Your task to perform on an android device: Set the phone to "Do not disturb". Image 0: 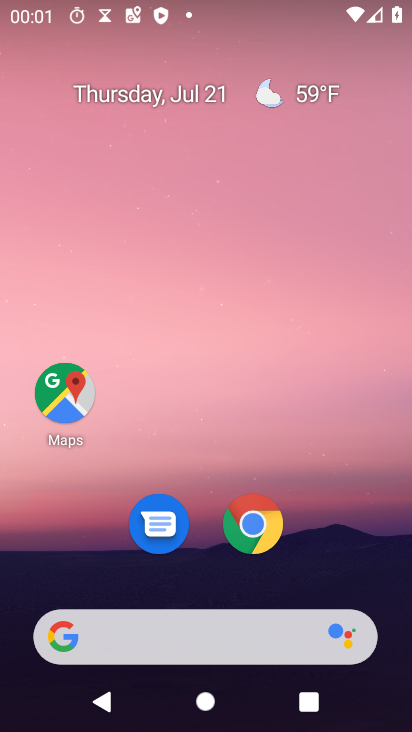
Step 0: press home button
Your task to perform on an android device: Set the phone to "Do not disturb". Image 1: 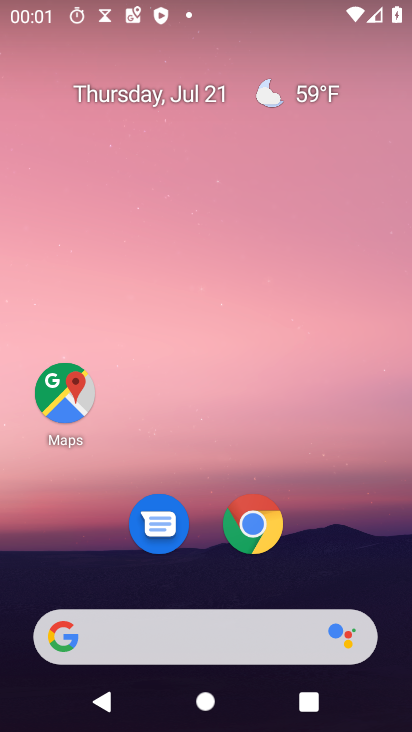
Step 1: drag from (206, 641) to (282, 74)
Your task to perform on an android device: Set the phone to "Do not disturb". Image 2: 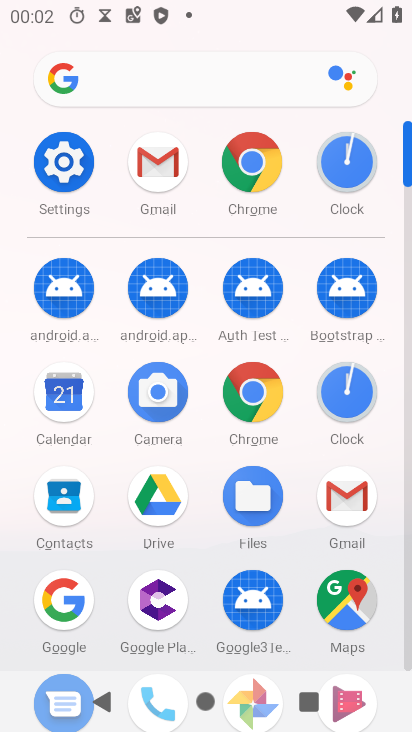
Step 2: click (73, 168)
Your task to perform on an android device: Set the phone to "Do not disturb". Image 3: 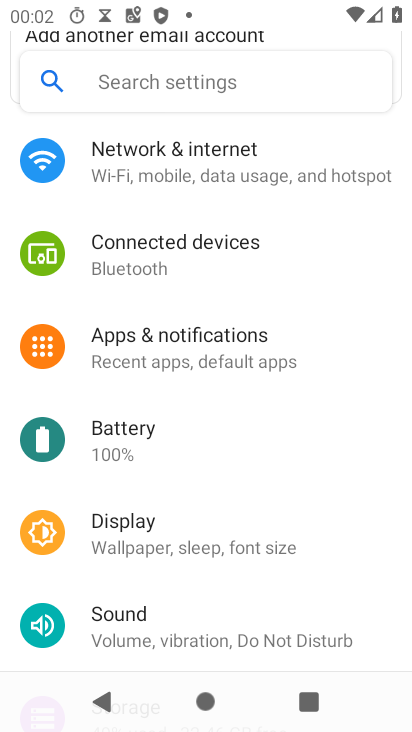
Step 3: drag from (247, 527) to (282, 146)
Your task to perform on an android device: Set the phone to "Do not disturb". Image 4: 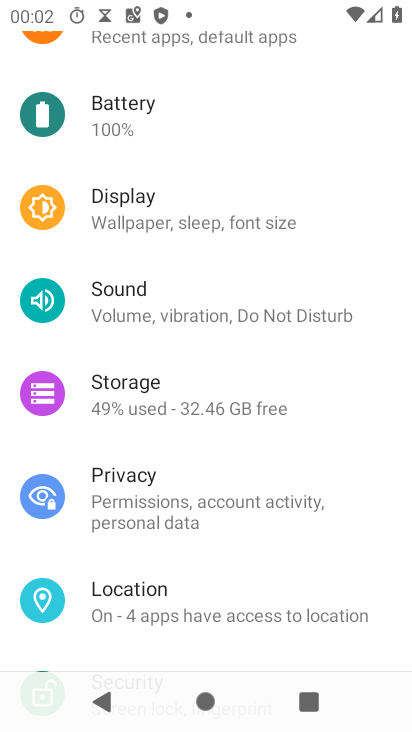
Step 4: click (146, 317)
Your task to perform on an android device: Set the phone to "Do not disturb". Image 5: 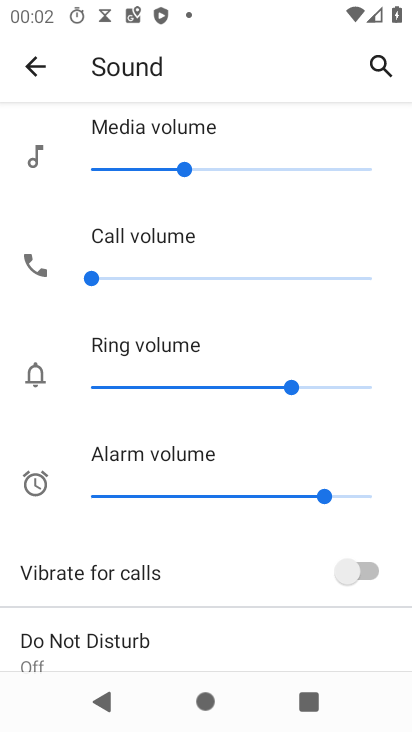
Step 5: drag from (118, 619) to (267, 141)
Your task to perform on an android device: Set the phone to "Do not disturb". Image 6: 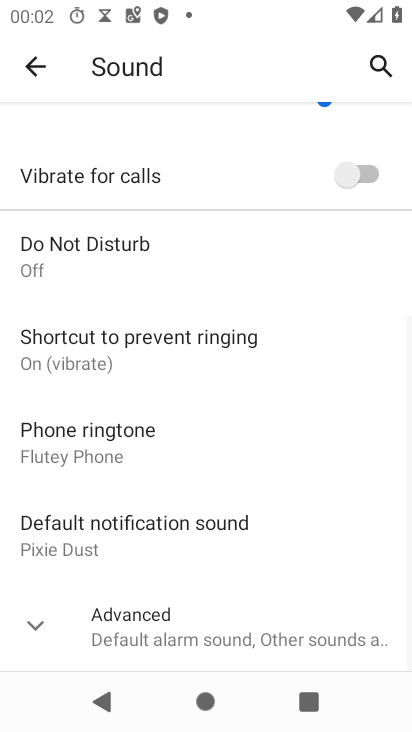
Step 6: click (122, 244)
Your task to perform on an android device: Set the phone to "Do not disturb". Image 7: 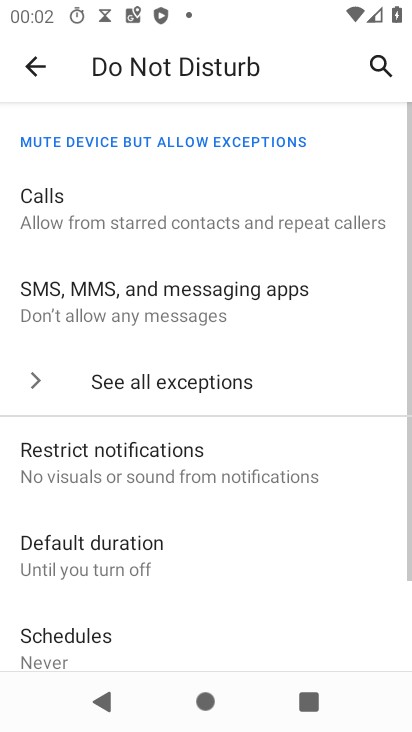
Step 7: drag from (133, 594) to (288, 51)
Your task to perform on an android device: Set the phone to "Do not disturb". Image 8: 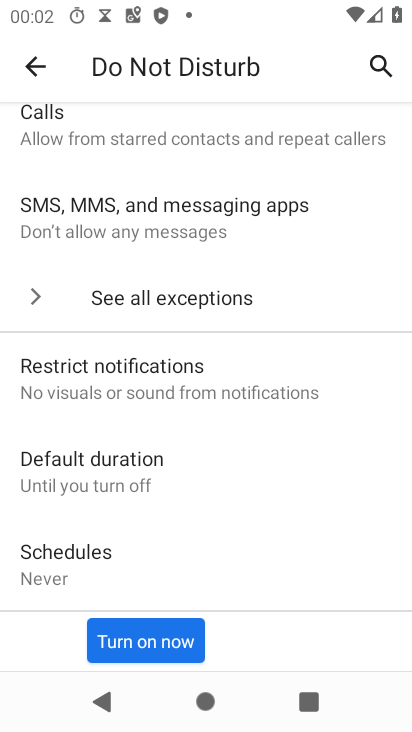
Step 8: click (153, 648)
Your task to perform on an android device: Set the phone to "Do not disturb". Image 9: 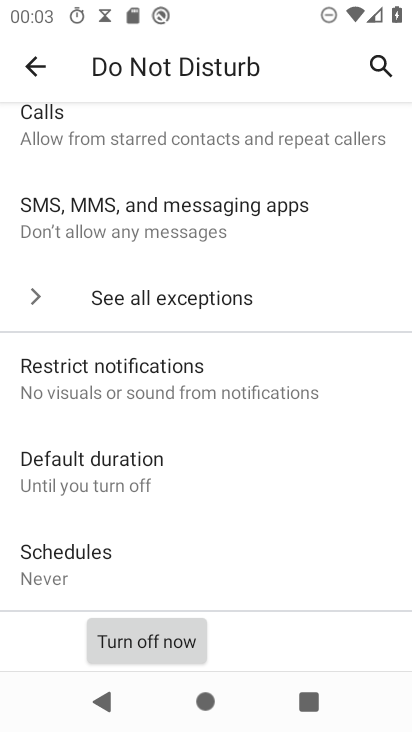
Step 9: task complete